Your task to perform on an android device: Go to location settings Image 0: 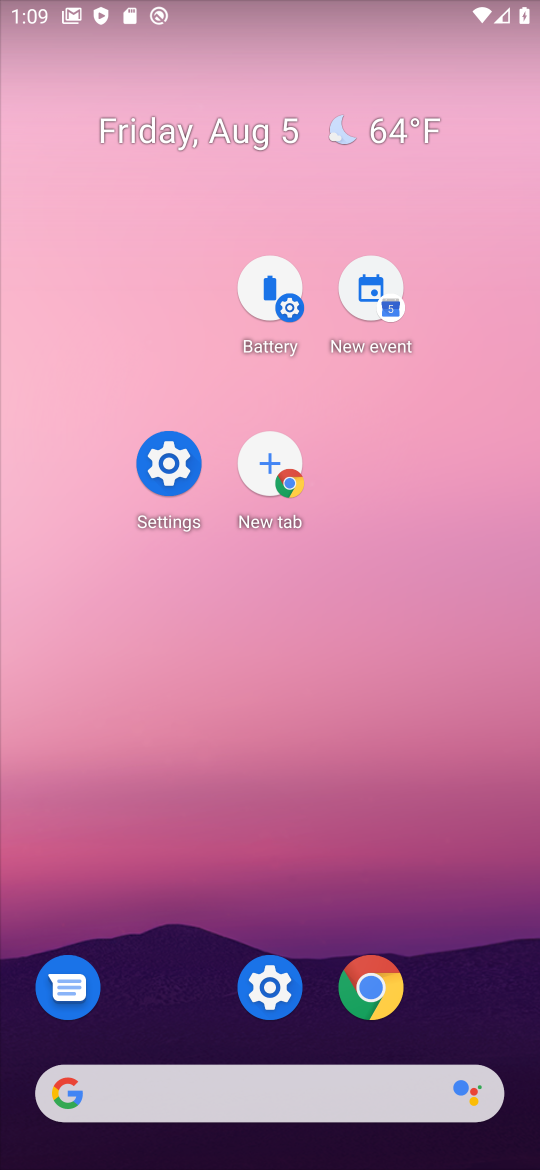
Step 0: click (294, 322)
Your task to perform on an android device: Go to location settings Image 1: 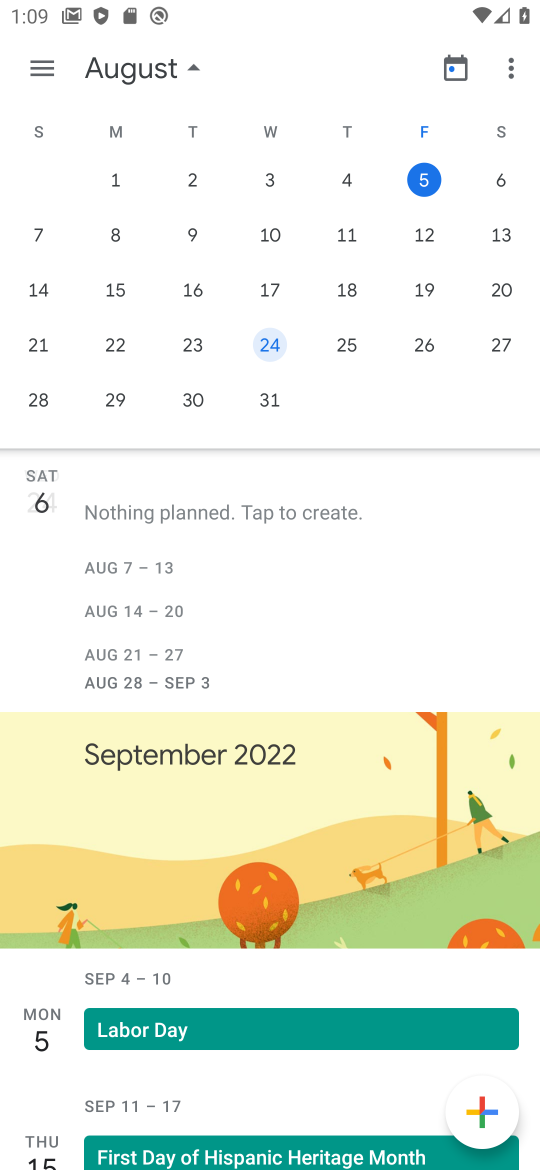
Step 1: drag from (331, 870) to (273, 234)
Your task to perform on an android device: Go to location settings Image 2: 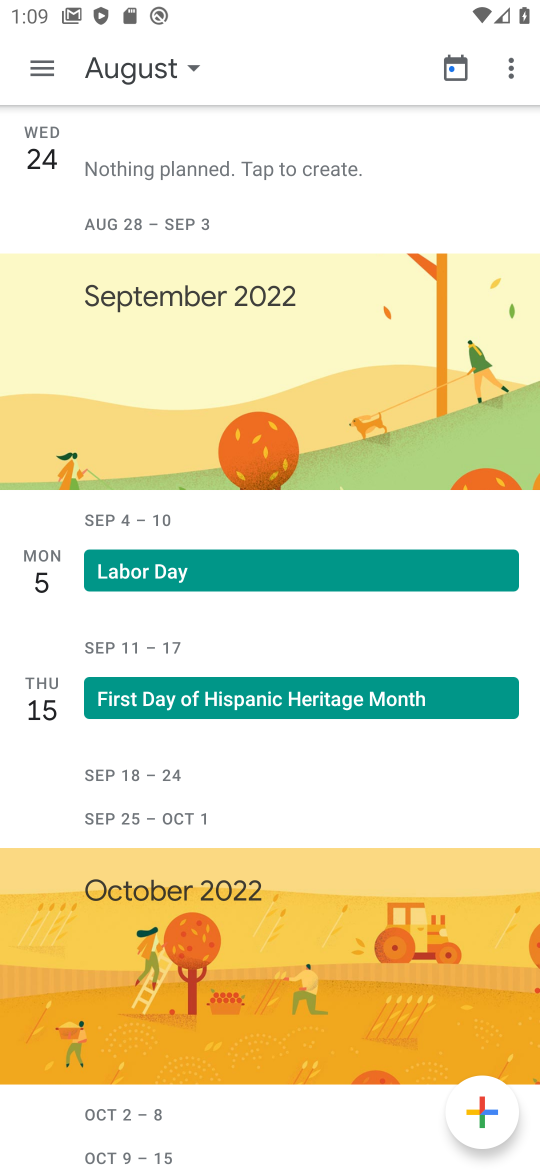
Step 2: press back button
Your task to perform on an android device: Go to location settings Image 3: 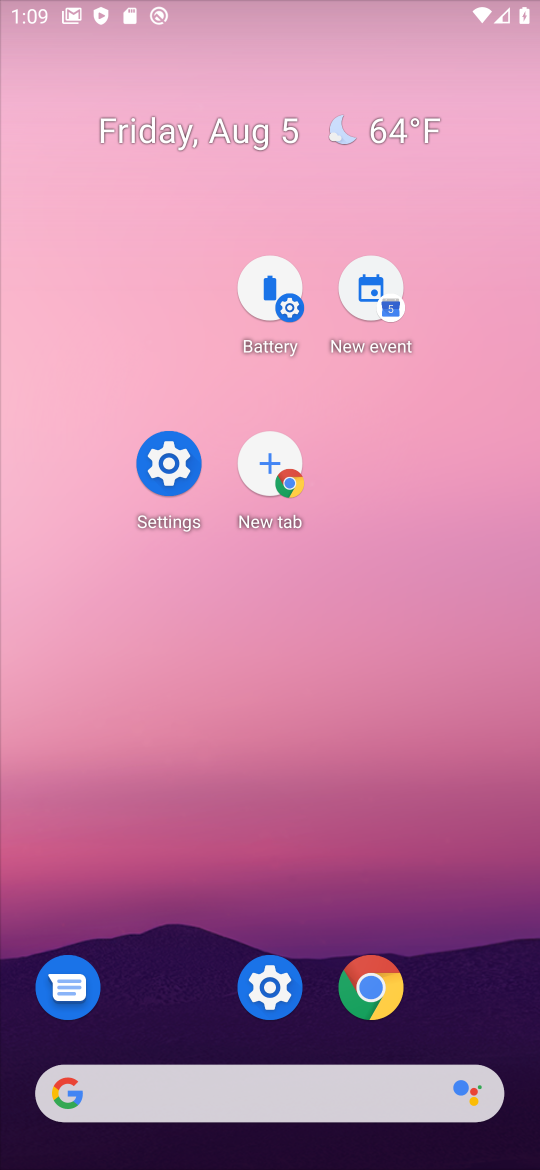
Step 3: press home button
Your task to perform on an android device: Go to location settings Image 4: 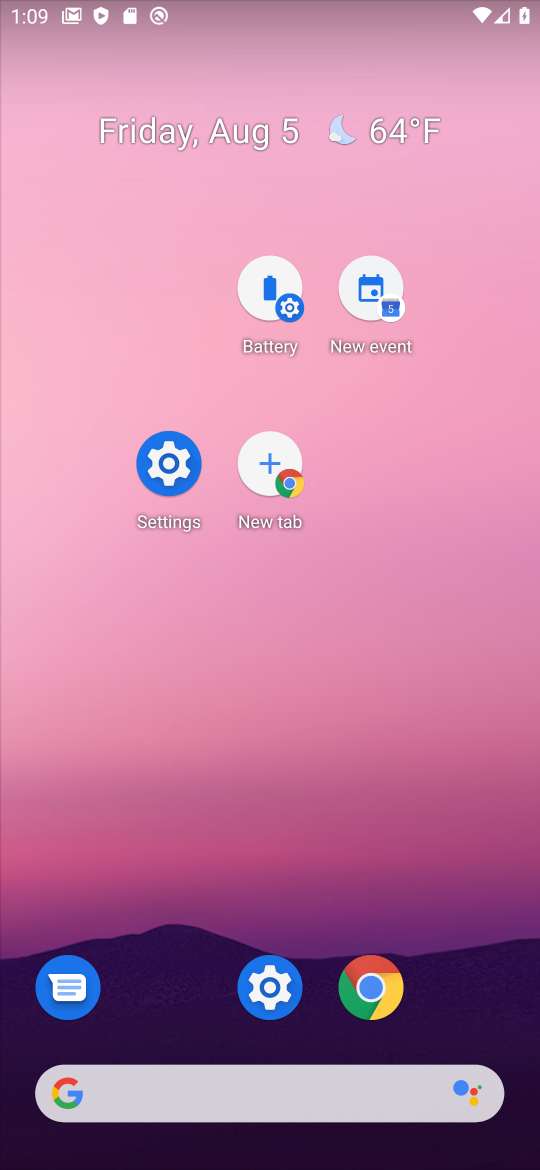
Step 4: click (33, 121)
Your task to perform on an android device: Go to location settings Image 5: 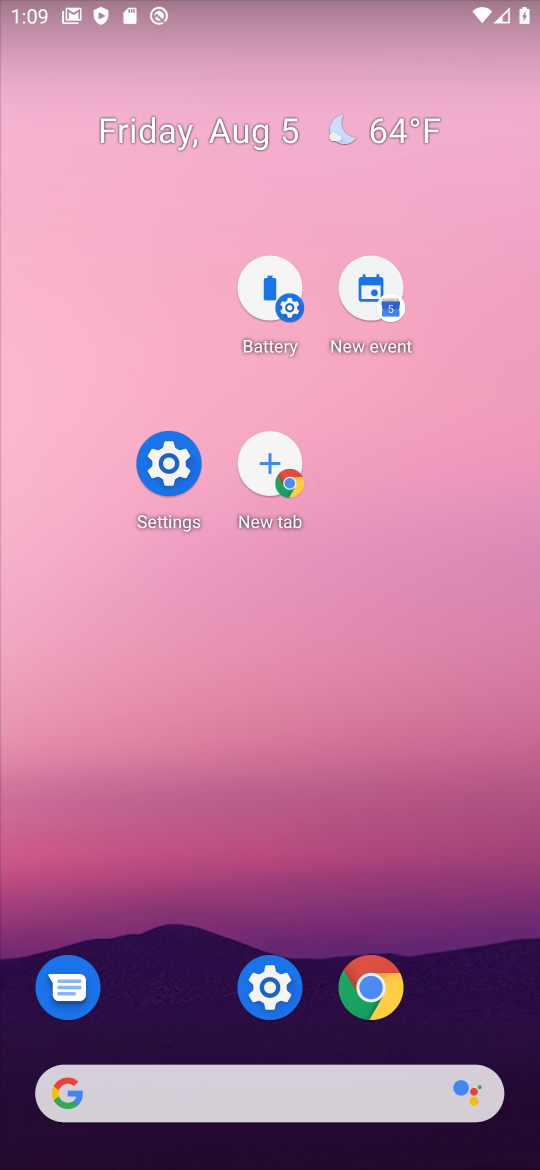
Step 5: drag from (275, 639) to (195, 80)
Your task to perform on an android device: Go to location settings Image 6: 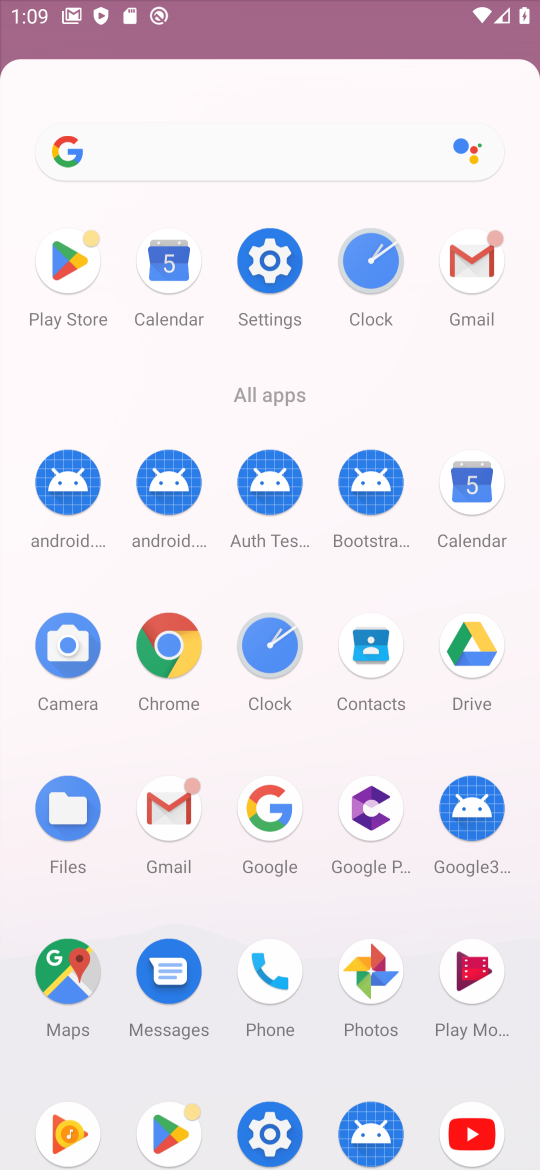
Step 6: drag from (415, 666) to (405, 247)
Your task to perform on an android device: Go to location settings Image 7: 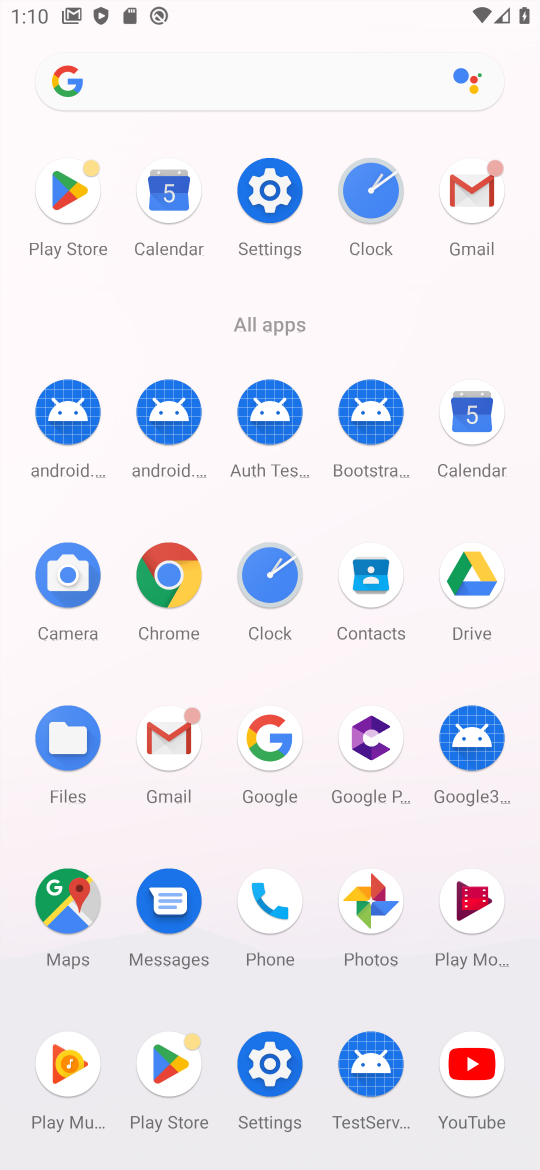
Step 7: click (270, 1079)
Your task to perform on an android device: Go to location settings Image 8: 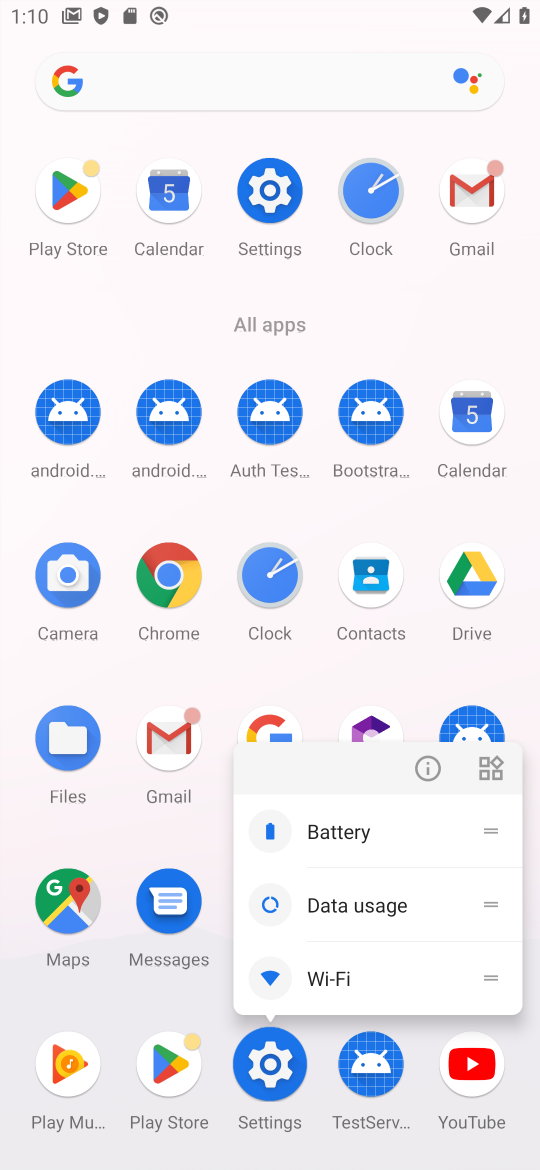
Step 8: click (289, 1065)
Your task to perform on an android device: Go to location settings Image 9: 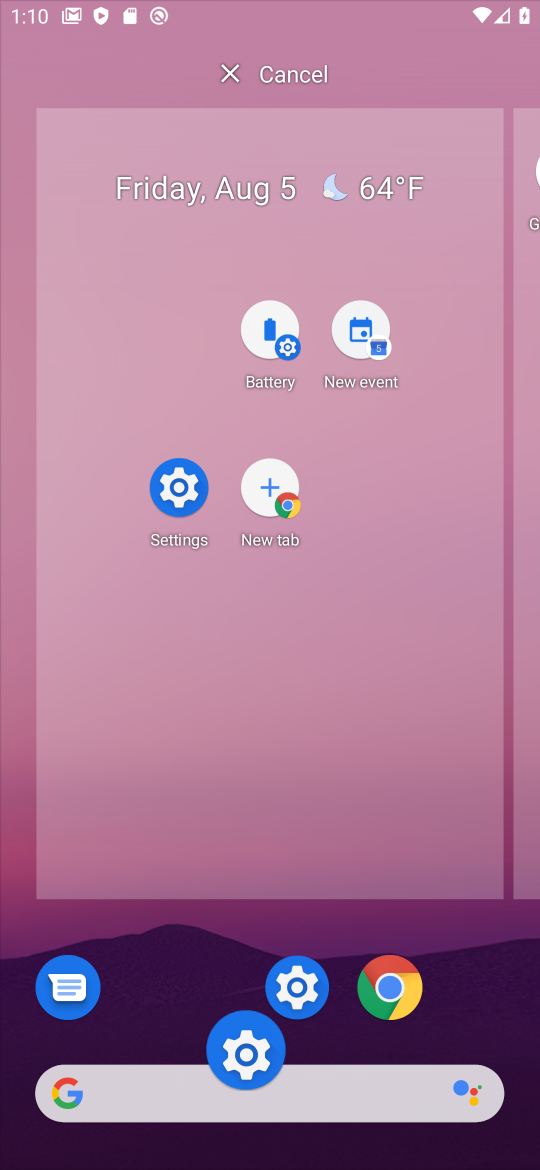
Step 9: drag from (217, 1052) to (282, 841)
Your task to perform on an android device: Go to location settings Image 10: 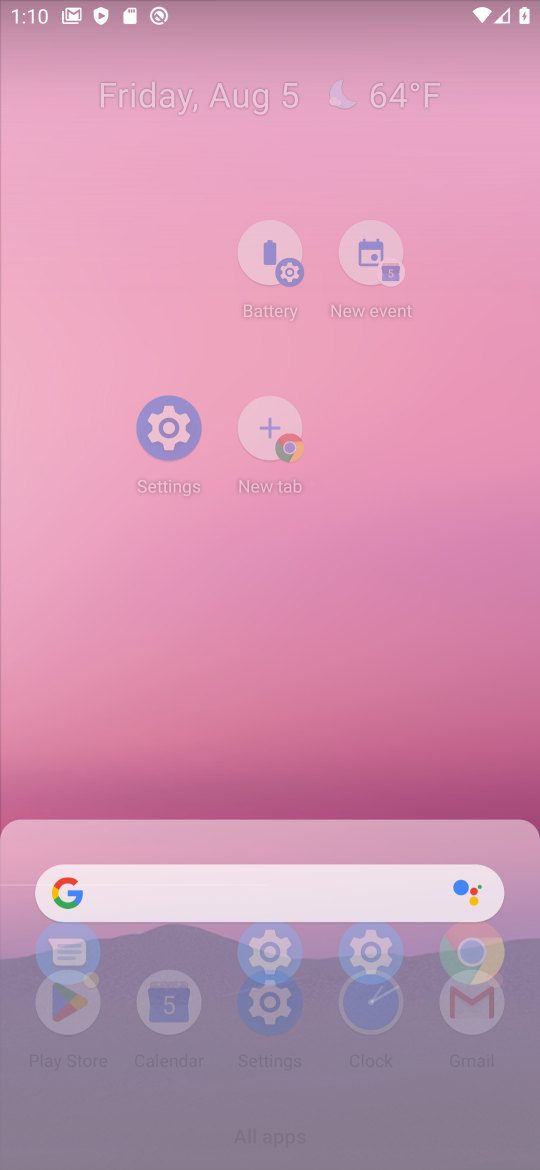
Step 10: drag from (240, 924) to (183, 551)
Your task to perform on an android device: Go to location settings Image 11: 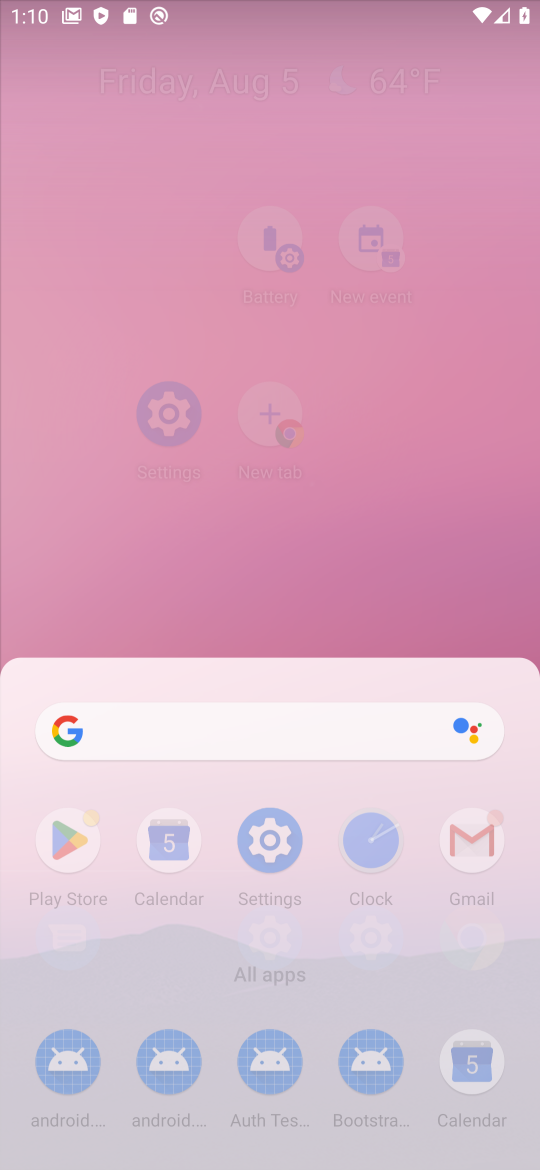
Step 11: drag from (99, 707) to (120, 354)
Your task to perform on an android device: Go to location settings Image 12: 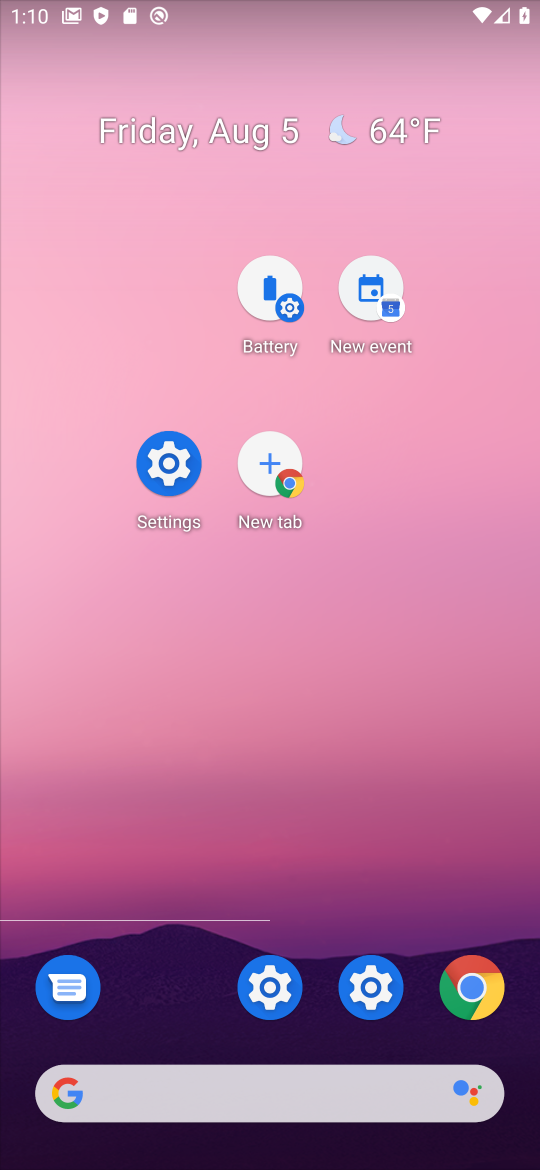
Step 12: click (345, 986)
Your task to perform on an android device: Go to location settings Image 13: 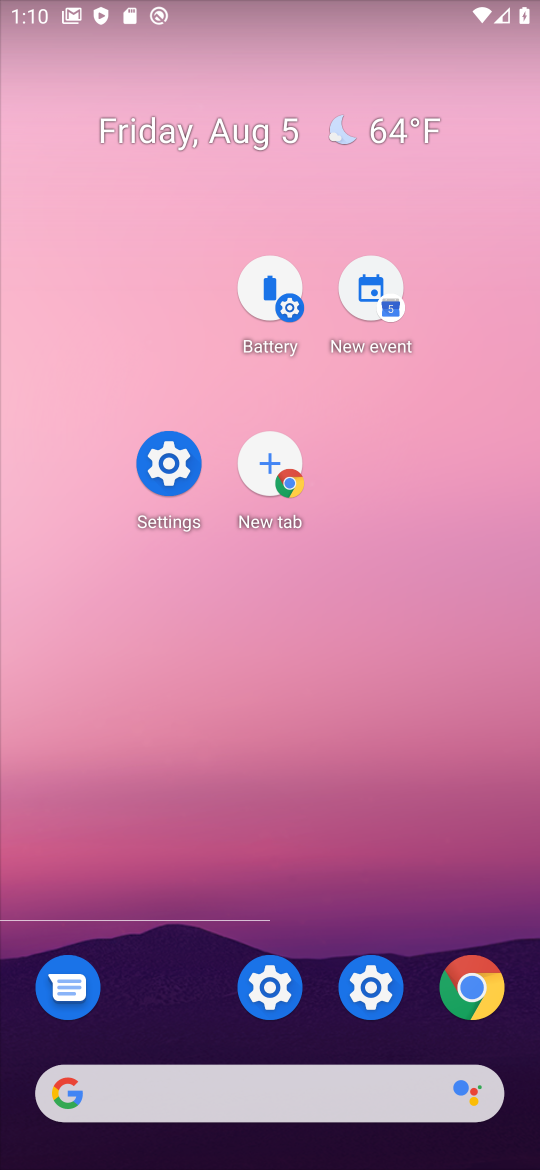
Step 13: click (359, 989)
Your task to perform on an android device: Go to location settings Image 14: 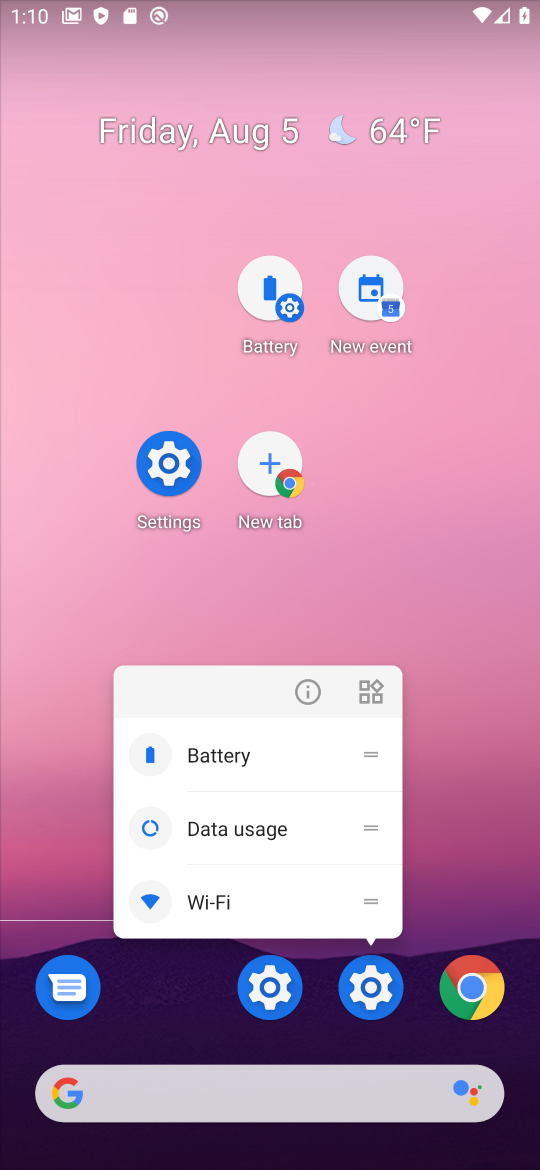
Step 14: click (354, 988)
Your task to perform on an android device: Go to location settings Image 15: 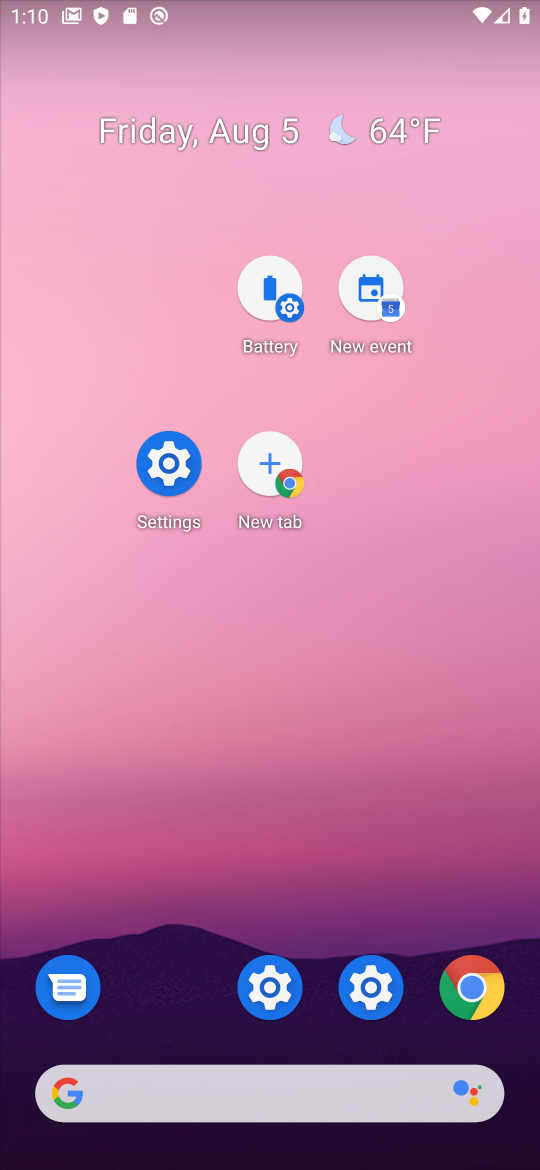
Step 15: task complete